Your task to perform on an android device: turn off location Image 0: 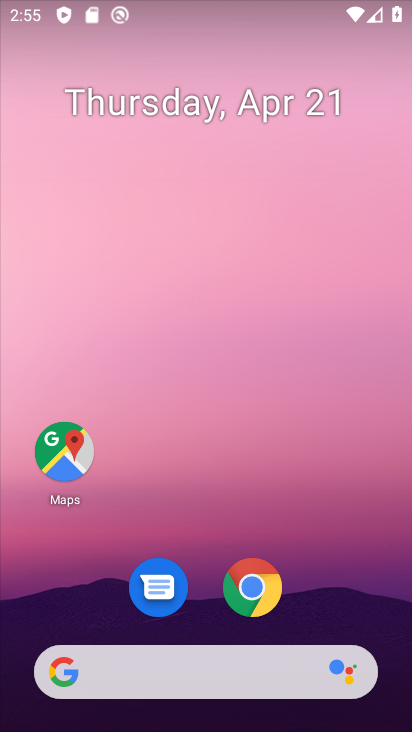
Step 0: drag from (308, 541) to (47, 61)
Your task to perform on an android device: turn off location Image 1: 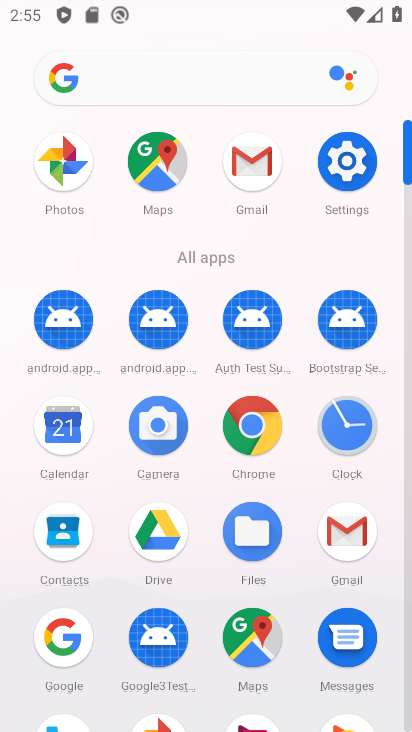
Step 1: click (354, 166)
Your task to perform on an android device: turn off location Image 2: 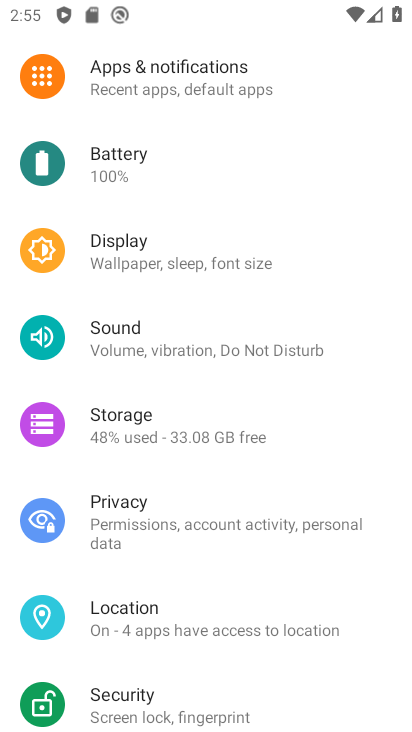
Step 2: click (134, 616)
Your task to perform on an android device: turn off location Image 3: 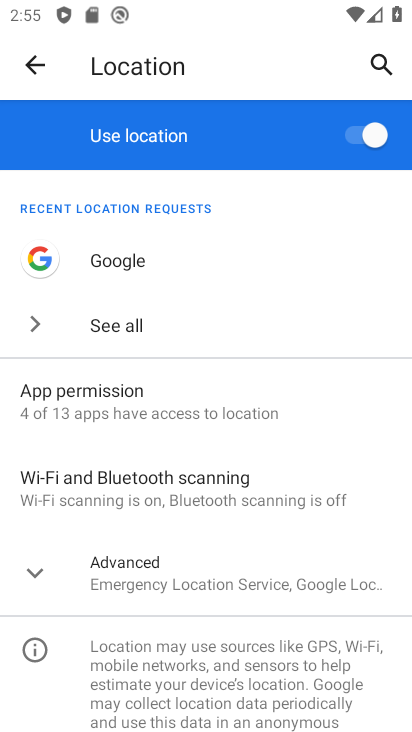
Step 3: click (362, 135)
Your task to perform on an android device: turn off location Image 4: 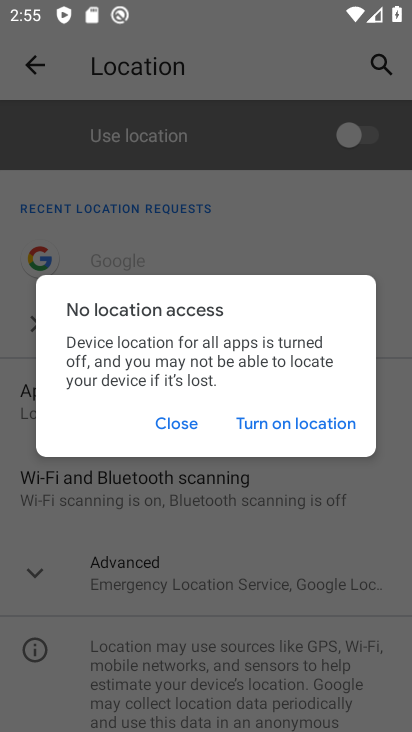
Step 4: task complete